Your task to perform on an android device: open wifi settings Image 0: 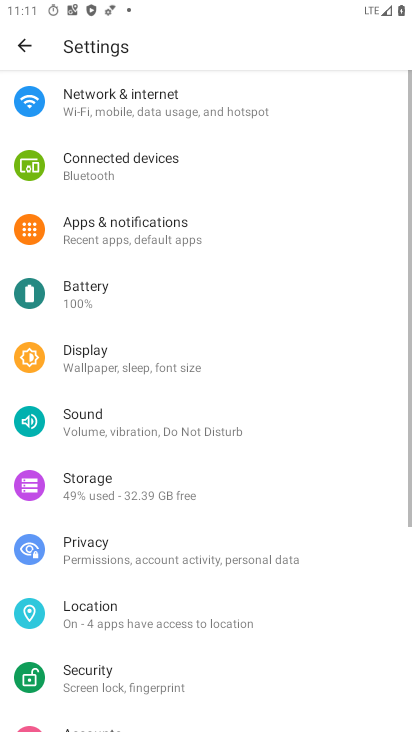
Step 0: drag from (126, 5) to (127, 507)
Your task to perform on an android device: open wifi settings Image 1: 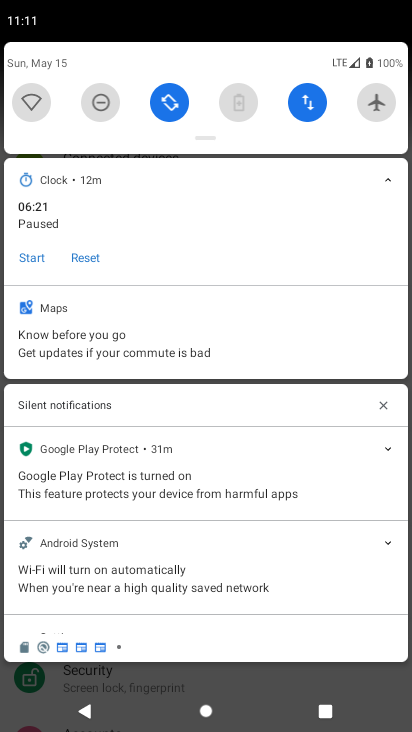
Step 1: click (27, 103)
Your task to perform on an android device: open wifi settings Image 2: 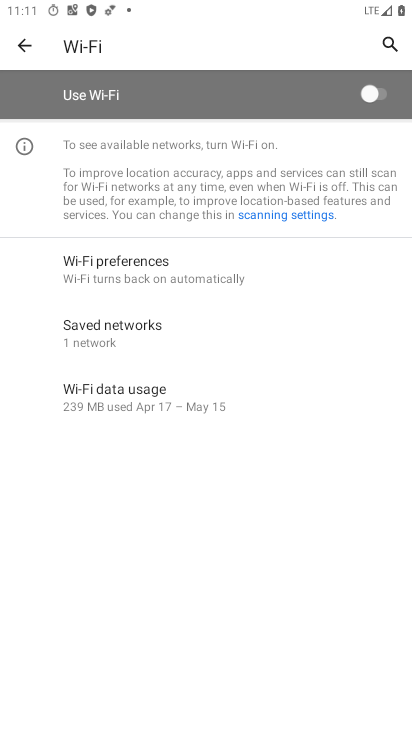
Step 2: task complete